Your task to perform on an android device: Open settings Image 0: 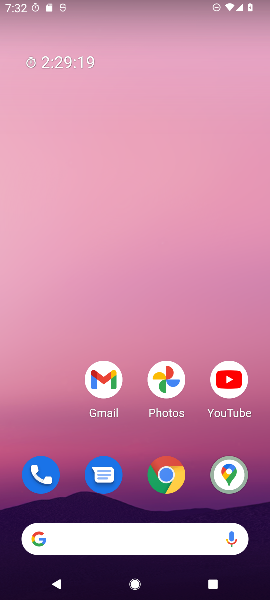
Step 0: press home button
Your task to perform on an android device: Open settings Image 1: 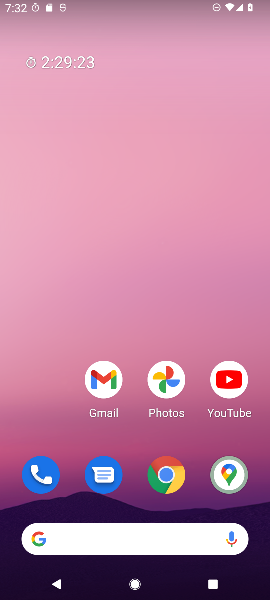
Step 1: drag from (55, 443) to (57, 170)
Your task to perform on an android device: Open settings Image 2: 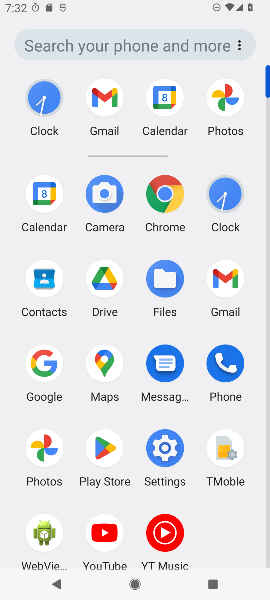
Step 2: click (167, 455)
Your task to perform on an android device: Open settings Image 3: 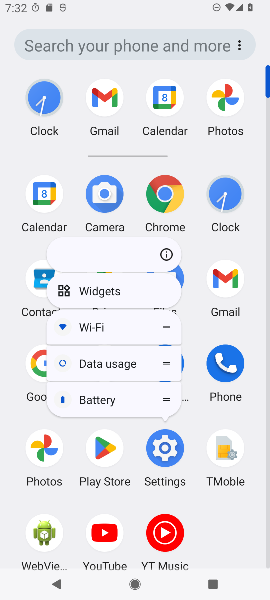
Step 3: click (167, 455)
Your task to perform on an android device: Open settings Image 4: 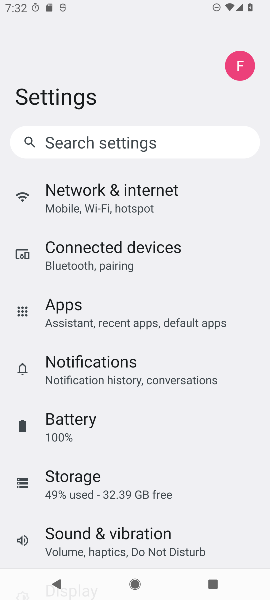
Step 4: task complete